Your task to perform on an android device: empty trash in the gmail app Image 0: 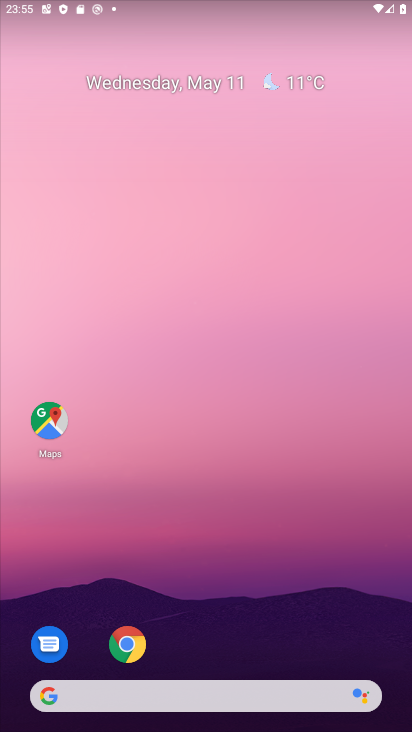
Step 0: drag from (203, 503) to (199, 61)
Your task to perform on an android device: empty trash in the gmail app Image 1: 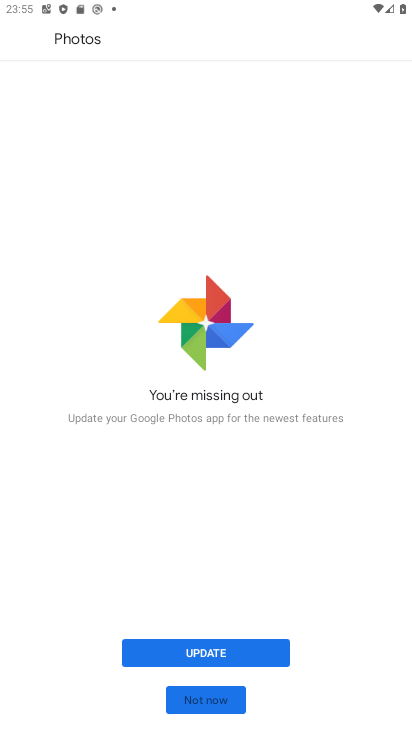
Step 1: press home button
Your task to perform on an android device: empty trash in the gmail app Image 2: 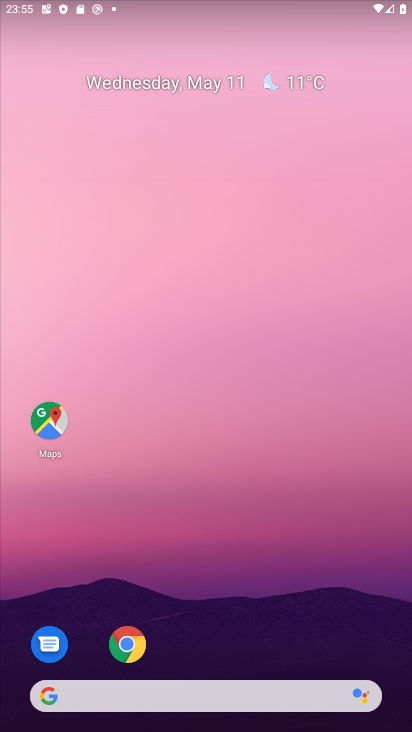
Step 2: drag from (213, 655) to (229, 89)
Your task to perform on an android device: empty trash in the gmail app Image 3: 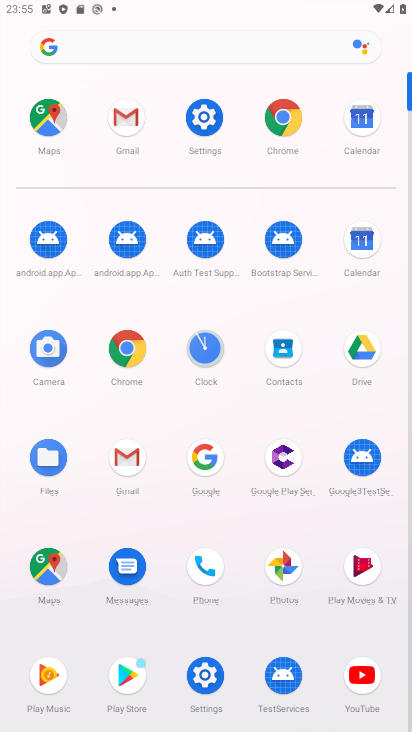
Step 3: click (125, 454)
Your task to perform on an android device: empty trash in the gmail app Image 4: 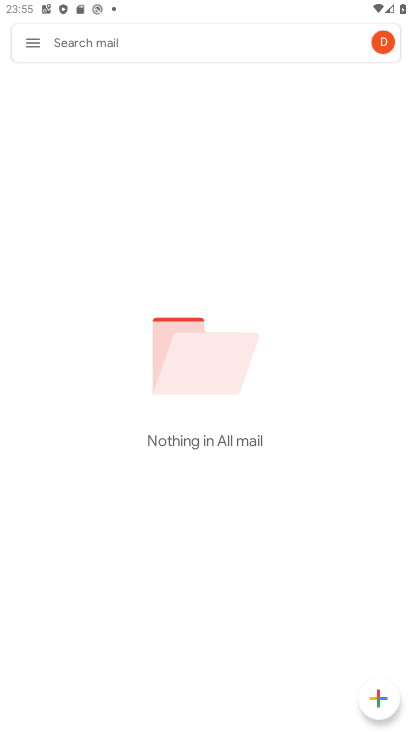
Step 4: click (38, 41)
Your task to perform on an android device: empty trash in the gmail app Image 5: 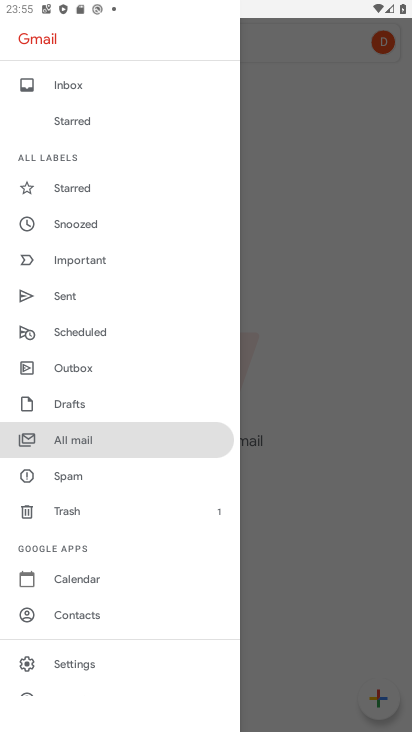
Step 5: click (76, 514)
Your task to perform on an android device: empty trash in the gmail app Image 6: 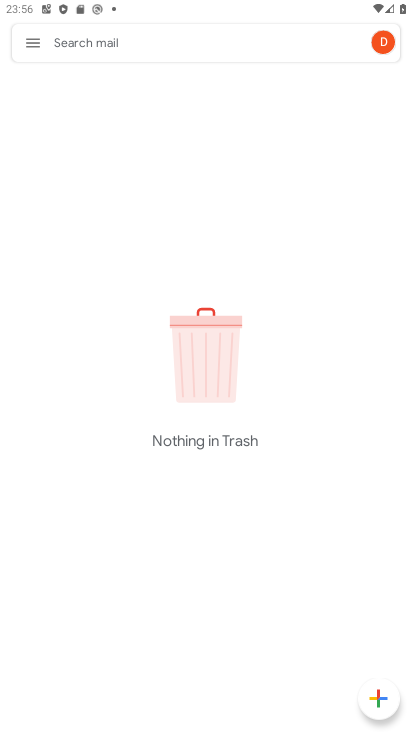
Step 6: task complete